Your task to perform on an android device: change the clock style Image 0: 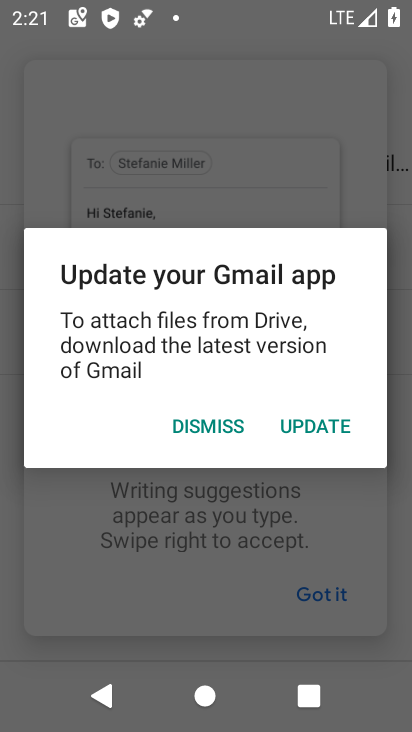
Step 0: press home button
Your task to perform on an android device: change the clock style Image 1: 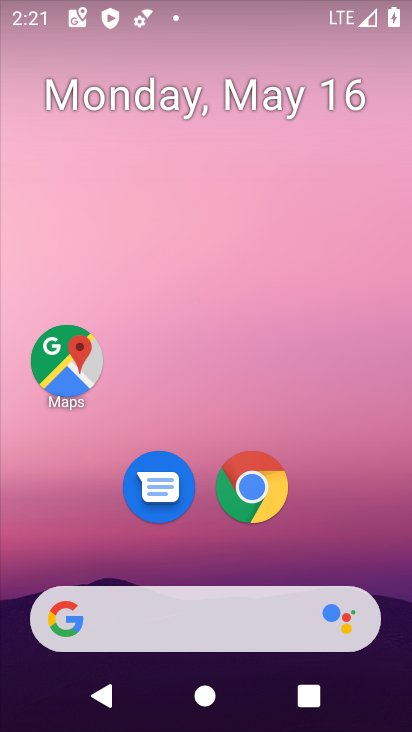
Step 1: drag from (343, 505) to (259, 62)
Your task to perform on an android device: change the clock style Image 2: 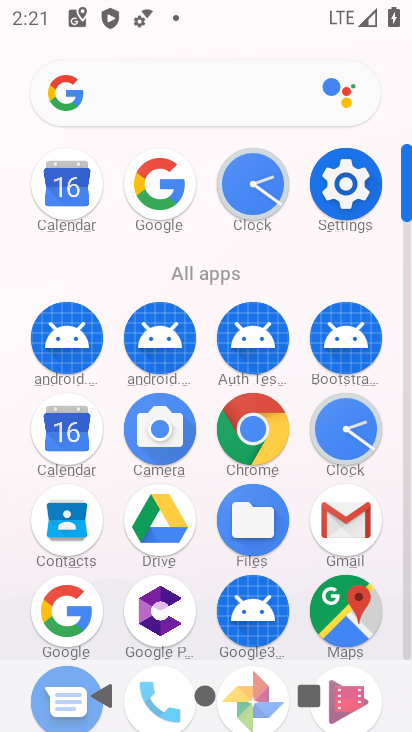
Step 2: click (256, 186)
Your task to perform on an android device: change the clock style Image 3: 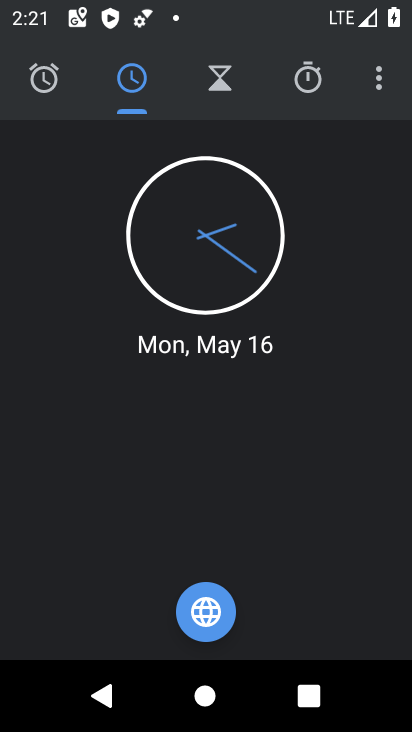
Step 3: click (380, 78)
Your task to perform on an android device: change the clock style Image 4: 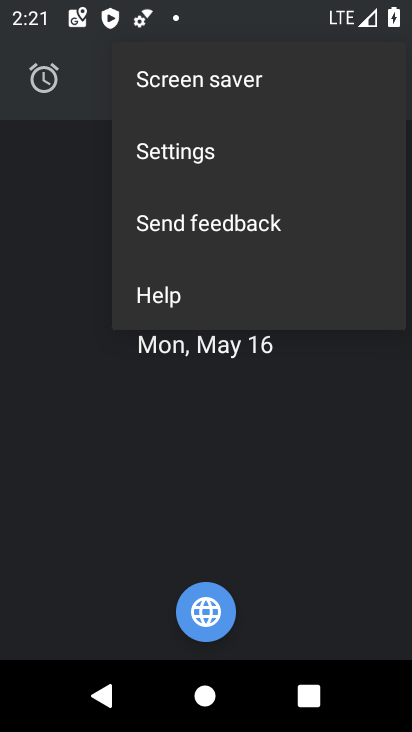
Step 4: click (205, 150)
Your task to perform on an android device: change the clock style Image 5: 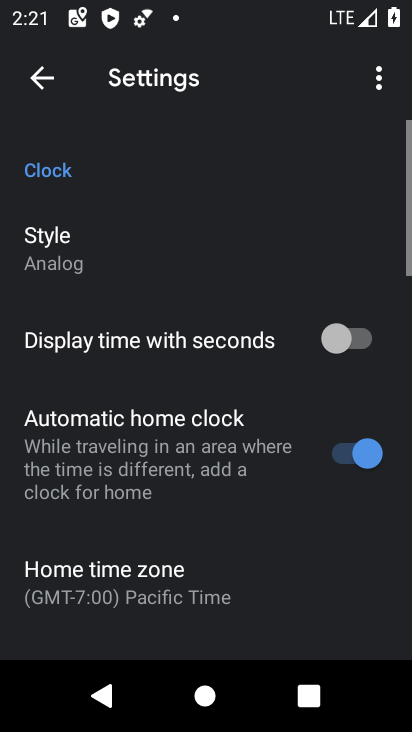
Step 5: click (78, 249)
Your task to perform on an android device: change the clock style Image 6: 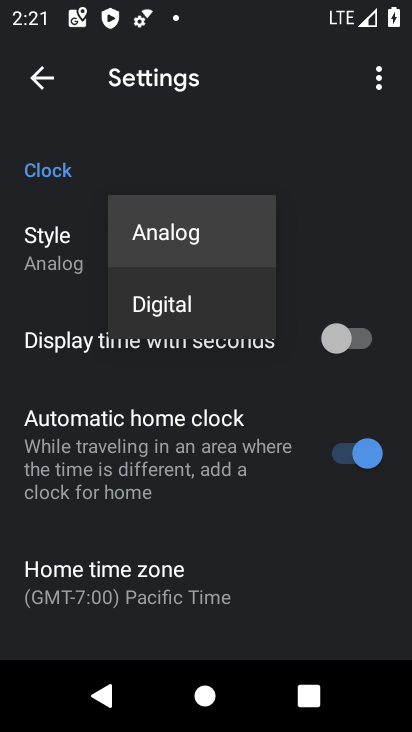
Step 6: click (172, 313)
Your task to perform on an android device: change the clock style Image 7: 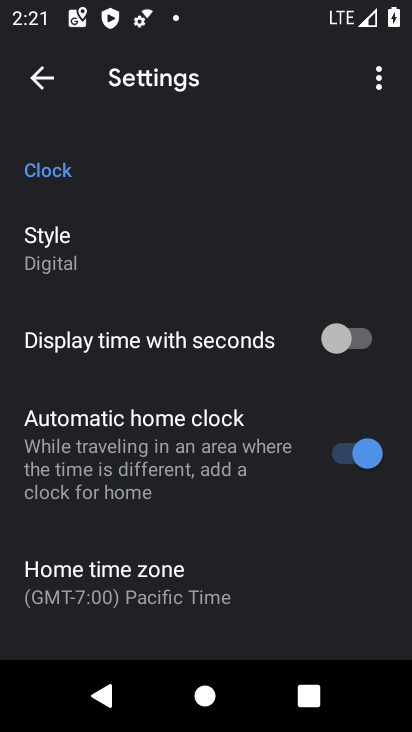
Step 7: task complete